Your task to perform on an android device: Go to location settings Image 0: 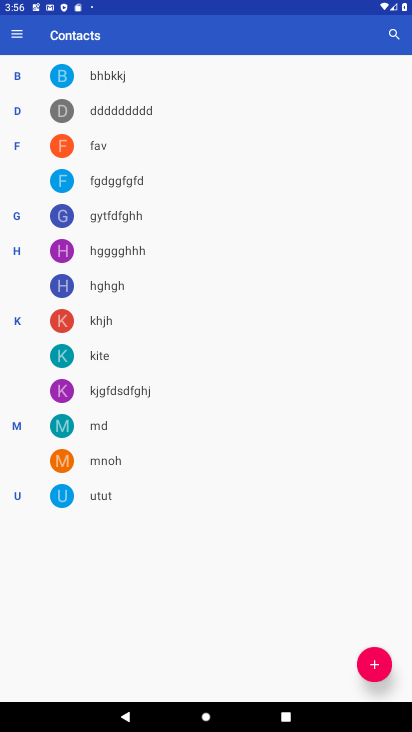
Step 0: press home button
Your task to perform on an android device: Go to location settings Image 1: 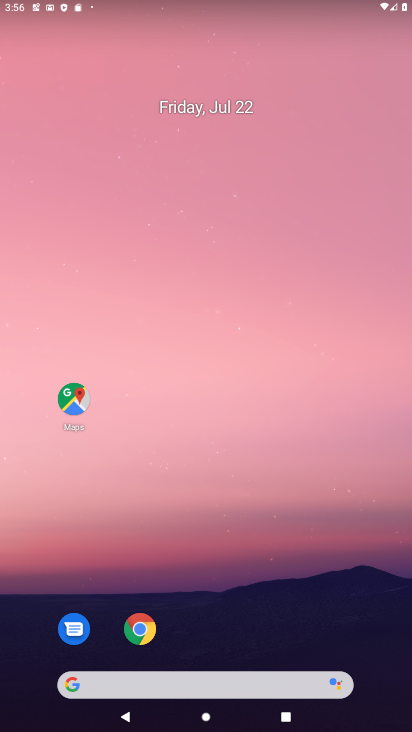
Step 1: drag from (233, 615) to (250, 125)
Your task to perform on an android device: Go to location settings Image 2: 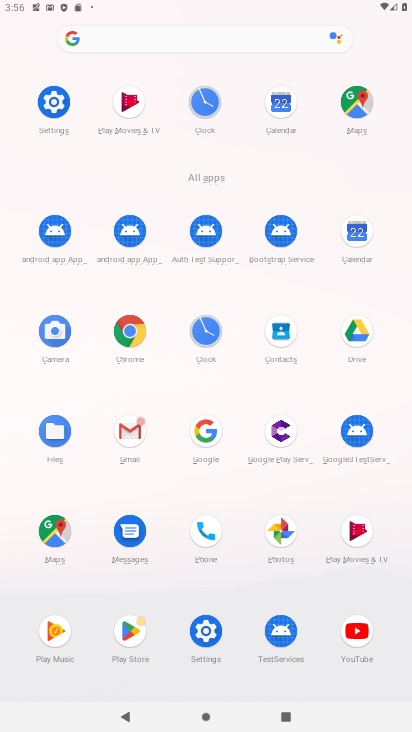
Step 2: click (206, 637)
Your task to perform on an android device: Go to location settings Image 3: 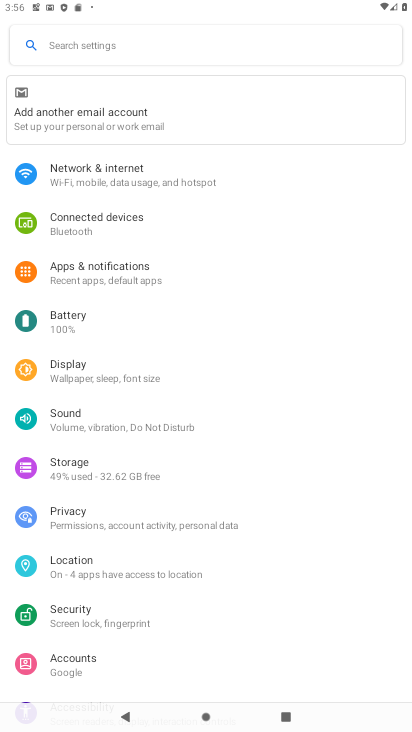
Step 3: click (71, 563)
Your task to perform on an android device: Go to location settings Image 4: 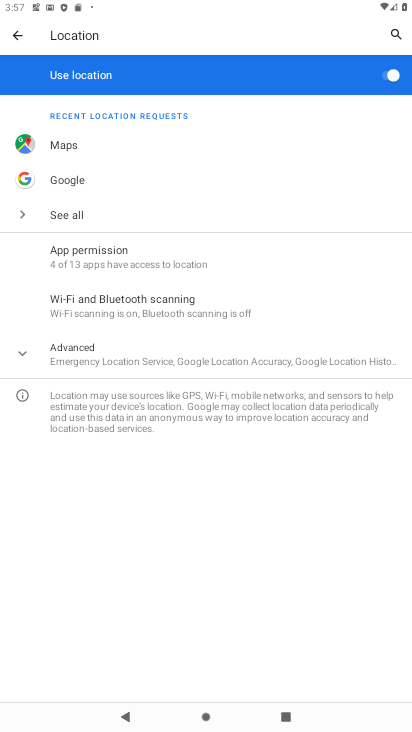
Step 4: task complete